Your task to perform on an android device: Show me popular games on the Play Store Image 0: 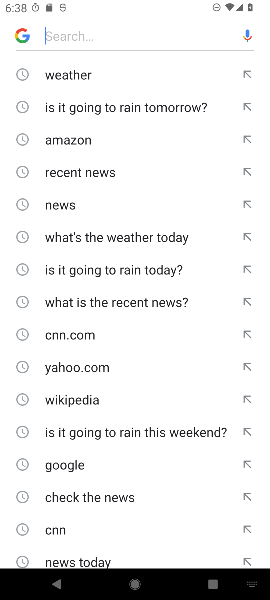
Step 0: press home button
Your task to perform on an android device: Show me popular games on the Play Store Image 1: 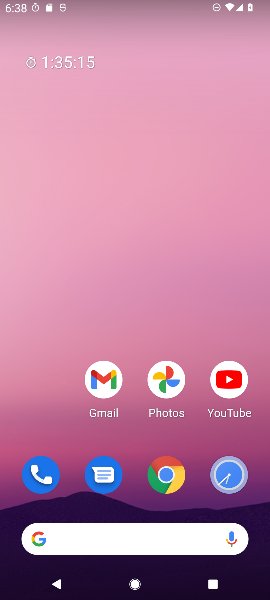
Step 1: drag from (62, 426) to (53, 146)
Your task to perform on an android device: Show me popular games on the Play Store Image 2: 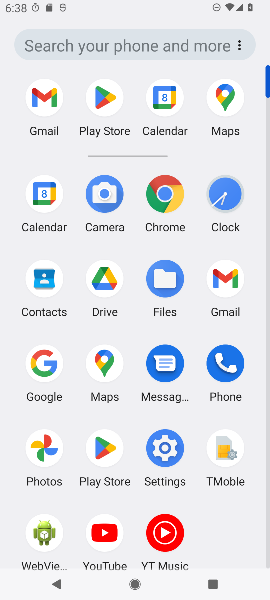
Step 2: click (103, 450)
Your task to perform on an android device: Show me popular games on the Play Store Image 3: 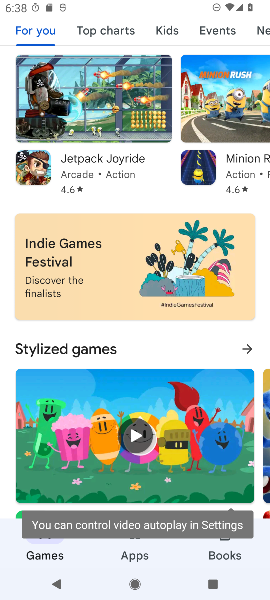
Step 3: task complete